Your task to perform on an android device: What's on my calendar tomorrow? Image 0: 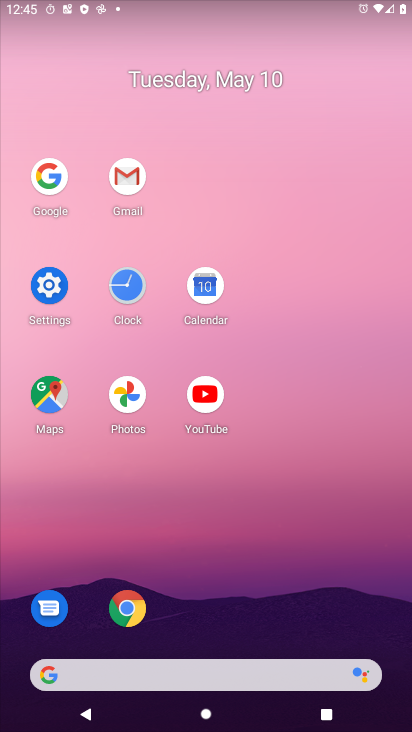
Step 0: click (208, 281)
Your task to perform on an android device: What's on my calendar tomorrow? Image 1: 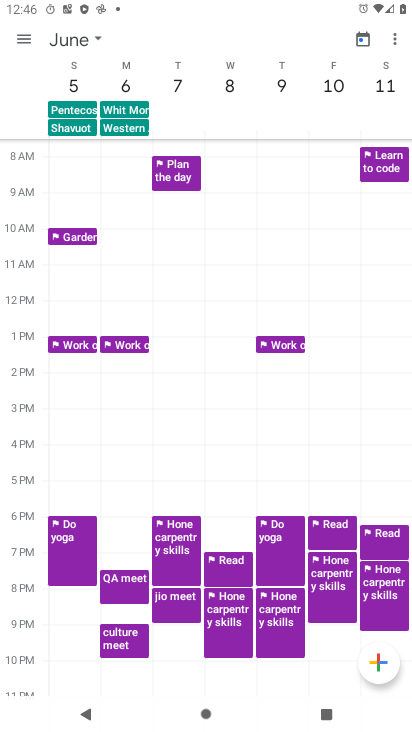
Step 1: click (65, 40)
Your task to perform on an android device: What's on my calendar tomorrow? Image 2: 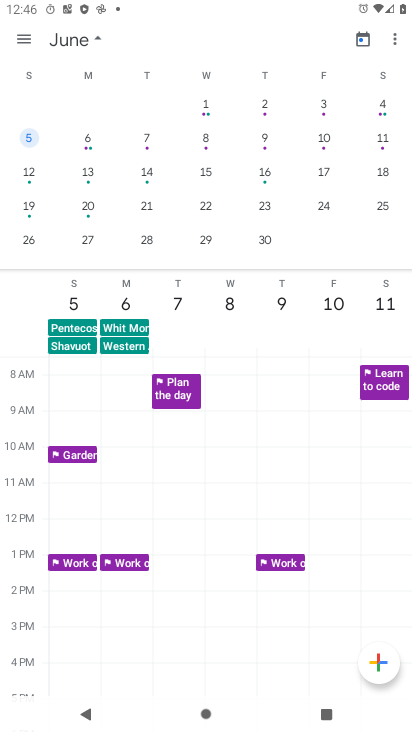
Step 2: drag from (25, 173) to (355, 102)
Your task to perform on an android device: What's on my calendar tomorrow? Image 3: 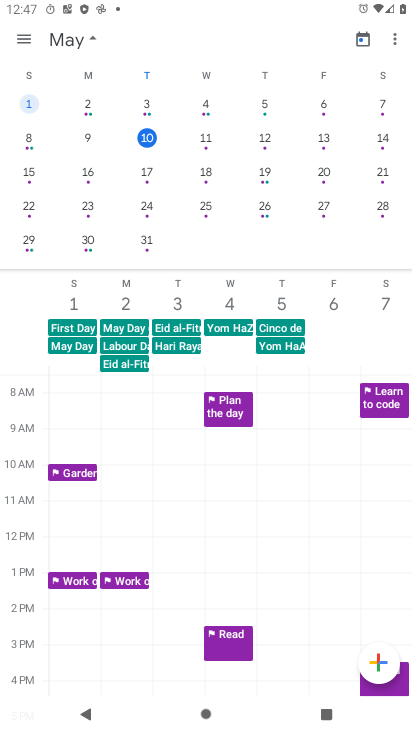
Step 3: click (213, 141)
Your task to perform on an android device: What's on my calendar tomorrow? Image 4: 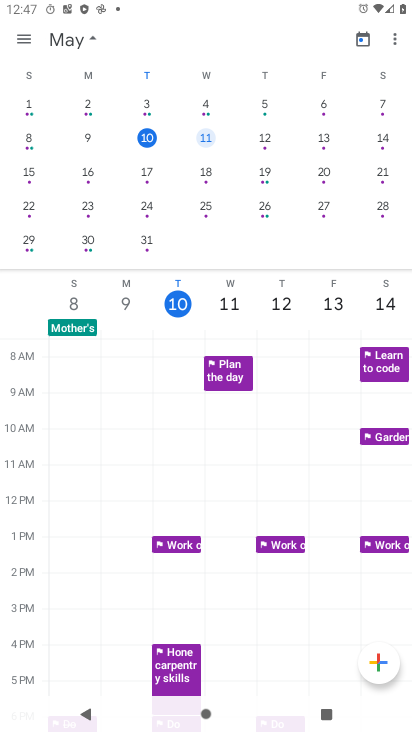
Step 4: task complete